Your task to perform on an android device: move an email to a new category in the gmail app Image 0: 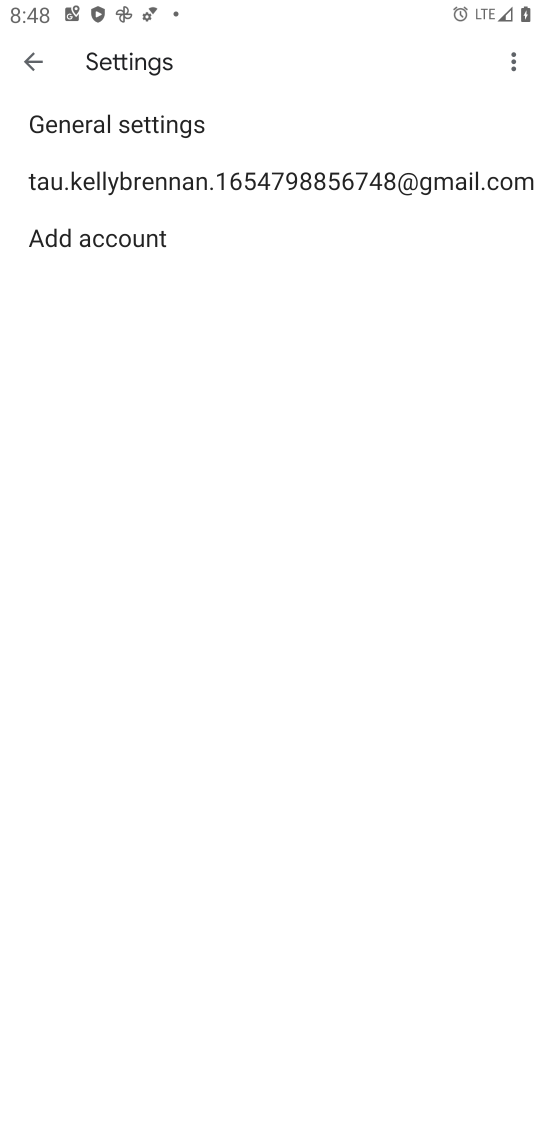
Step 0: press home button
Your task to perform on an android device: move an email to a new category in the gmail app Image 1: 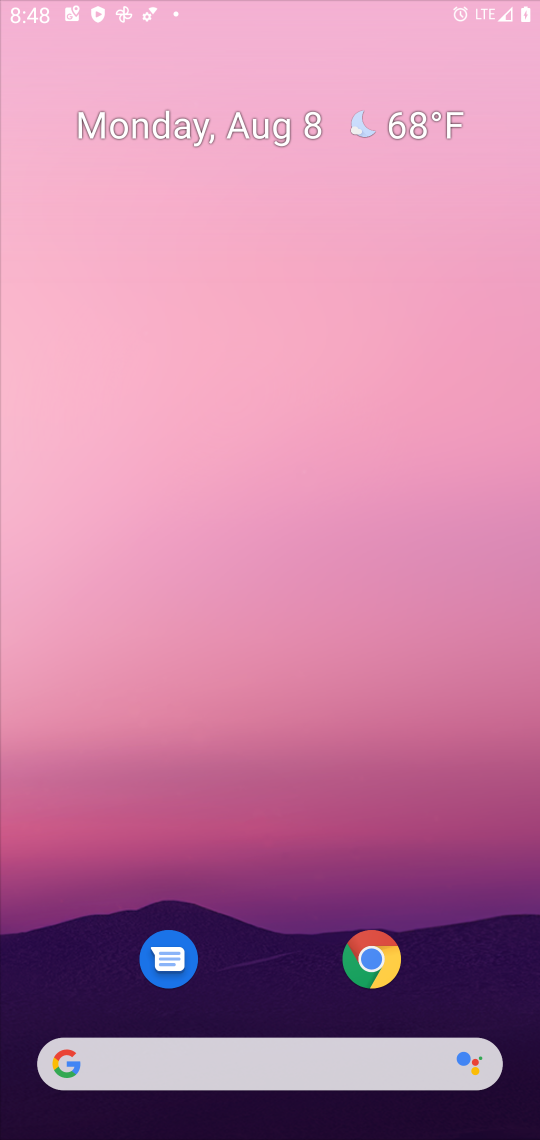
Step 1: drag from (492, 1038) to (277, 114)
Your task to perform on an android device: move an email to a new category in the gmail app Image 2: 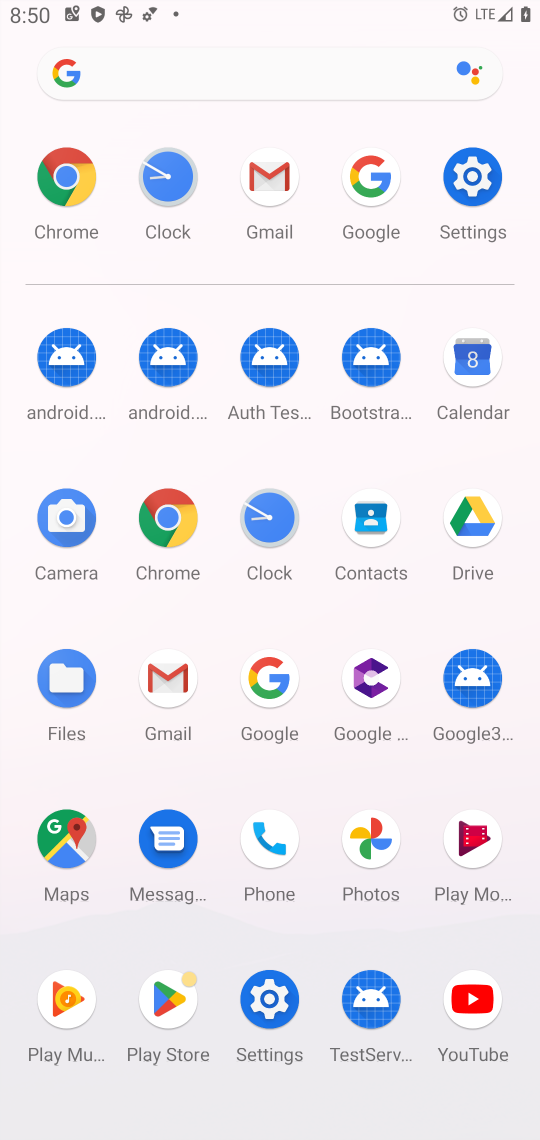
Step 2: click (166, 697)
Your task to perform on an android device: move an email to a new category in the gmail app Image 3: 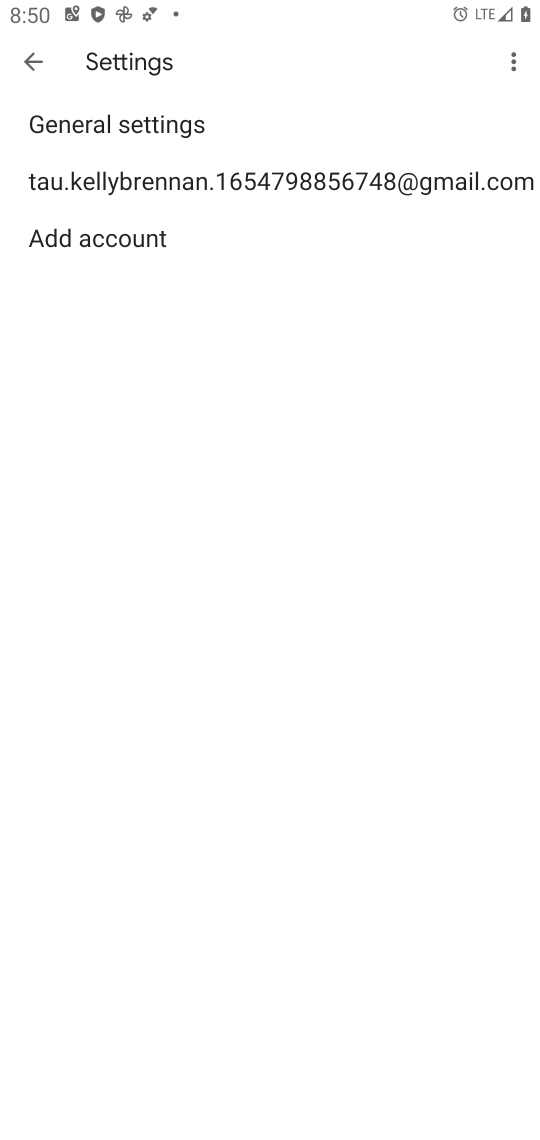
Step 3: task complete